Your task to perform on an android device: find which apps use the phone's location Image 0: 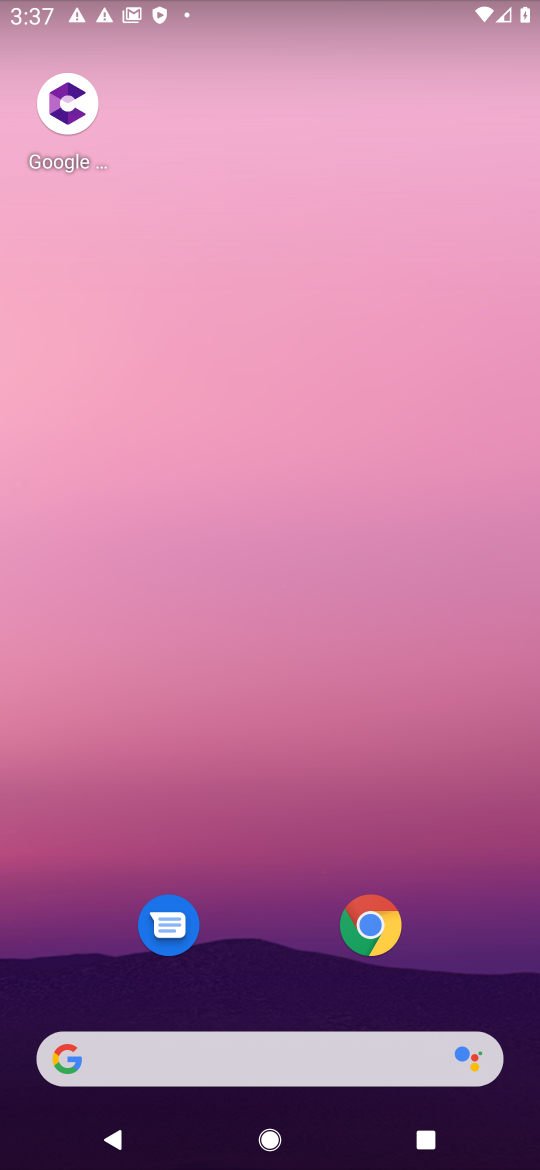
Step 0: drag from (280, 845) to (227, 100)
Your task to perform on an android device: find which apps use the phone's location Image 1: 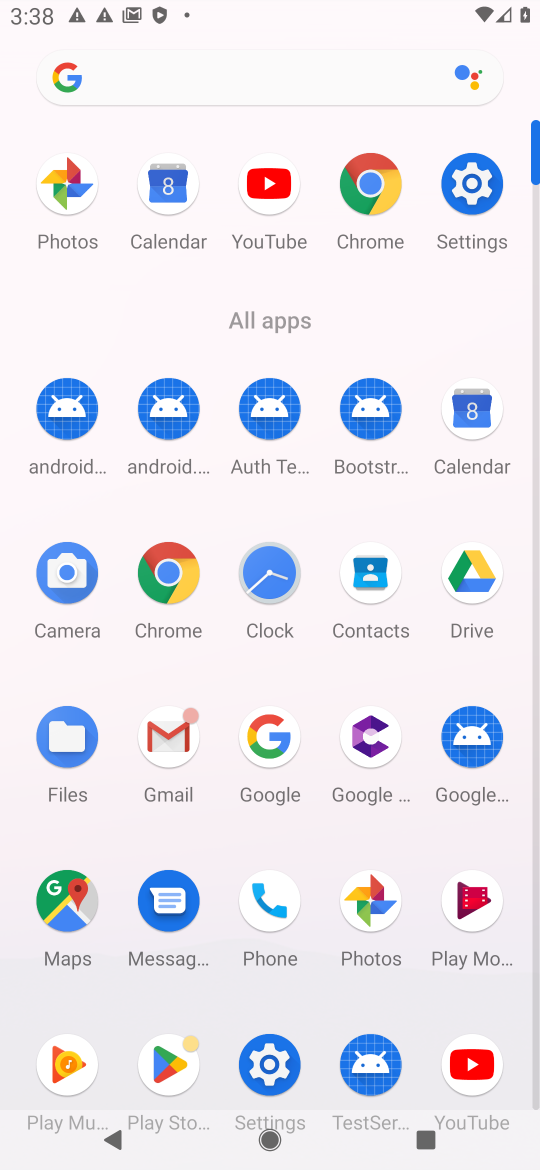
Step 1: click (278, 1056)
Your task to perform on an android device: find which apps use the phone's location Image 2: 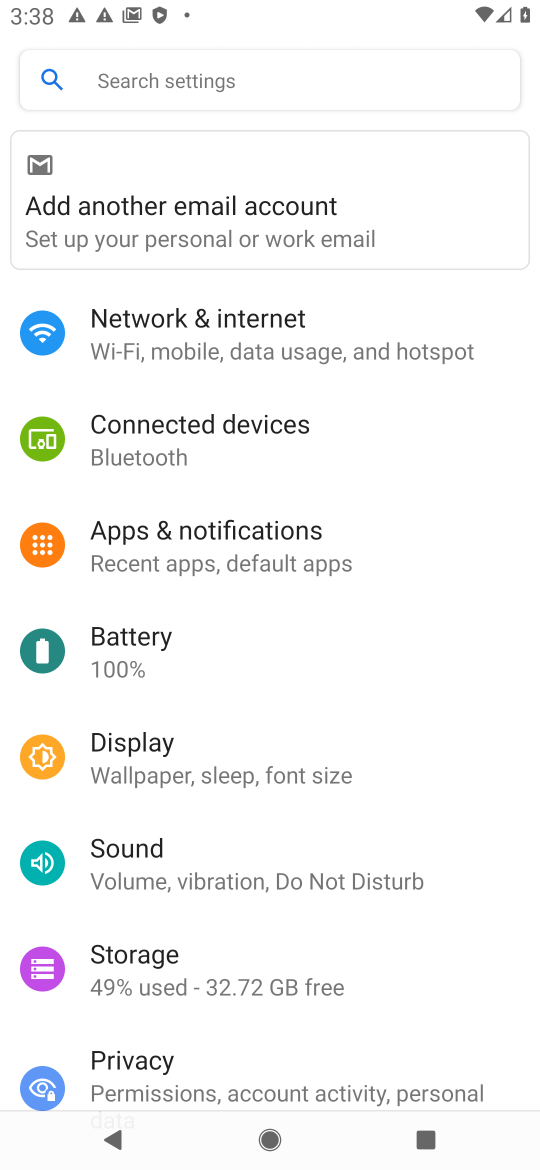
Step 2: drag from (179, 1040) to (110, 404)
Your task to perform on an android device: find which apps use the phone's location Image 3: 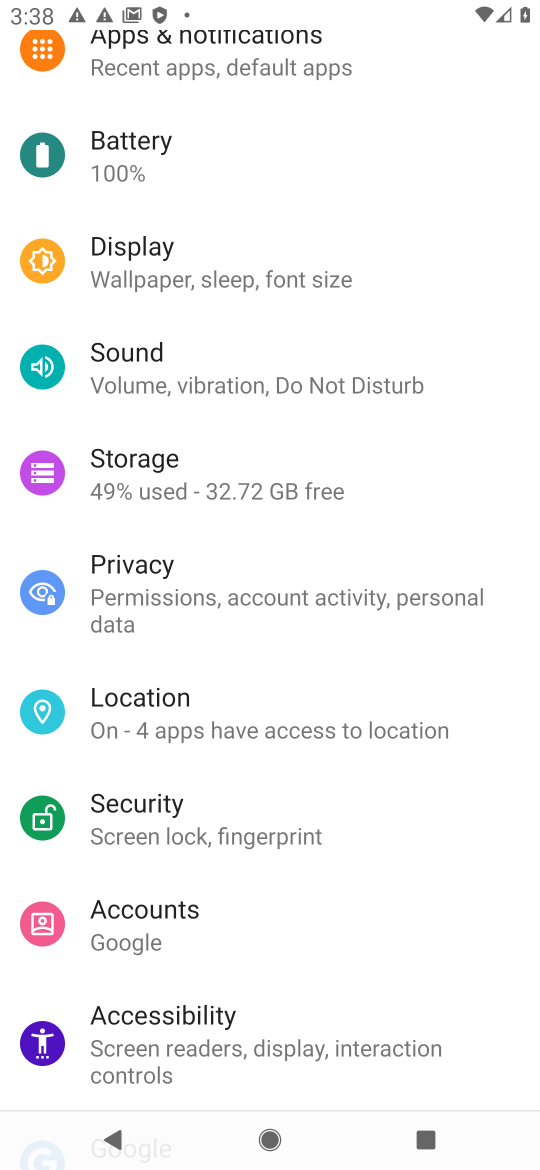
Step 3: click (164, 704)
Your task to perform on an android device: find which apps use the phone's location Image 4: 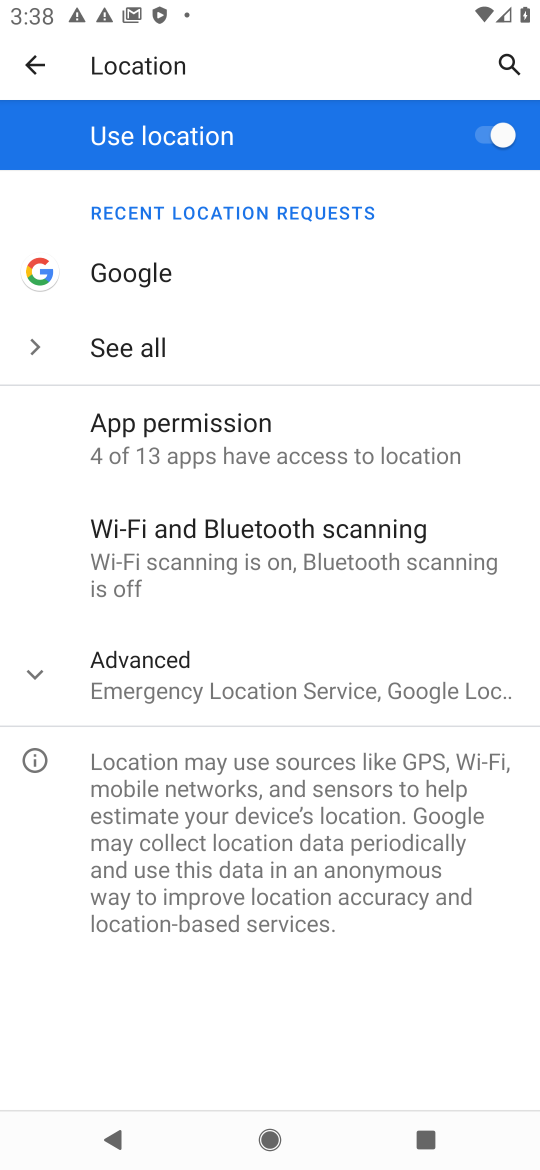
Step 4: click (146, 432)
Your task to perform on an android device: find which apps use the phone's location Image 5: 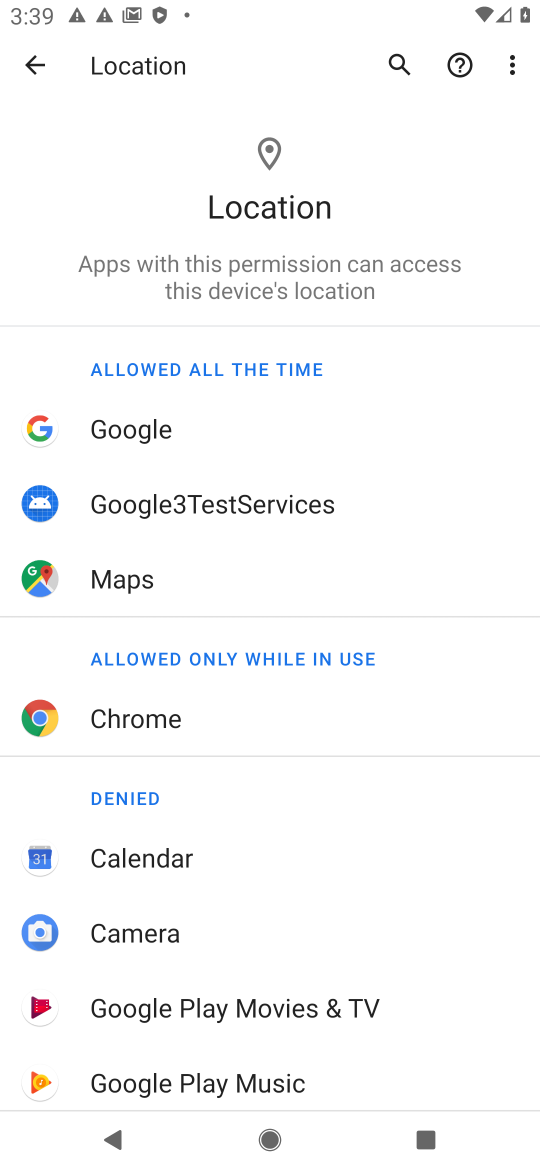
Step 5: task complete